Your task to perform on an android device: manage bookmarks in the chrome app Image 0: 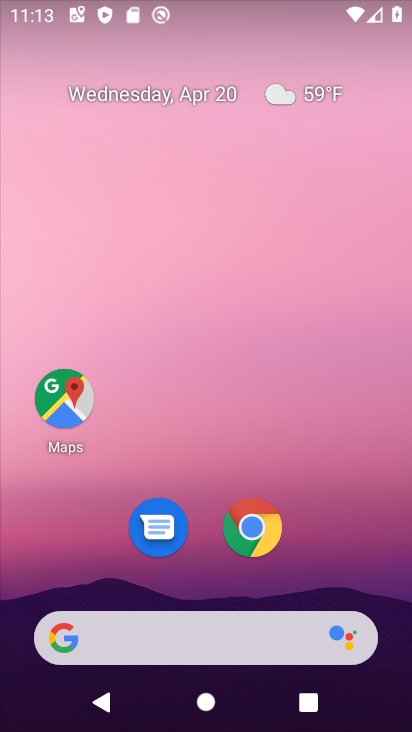
Step 0: drag from (329, 555) to (343, 214)
Your task to perform on an android device: manage bookmarks in the chrome app Image 1: 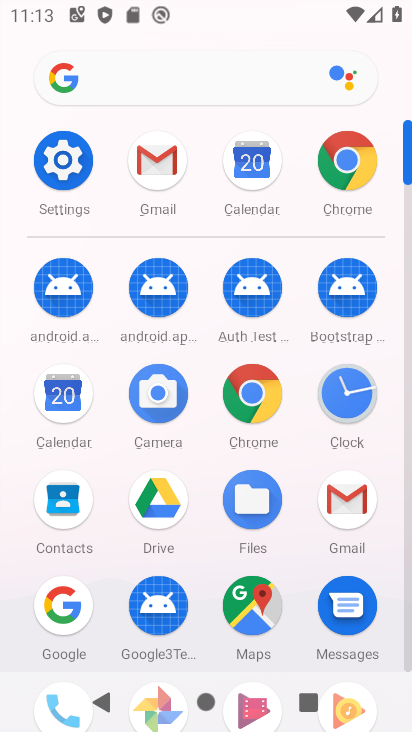
Step 1: click (252, 414)
Your task to perform on an android device: manage bookmarks in the chrome app Image 2: 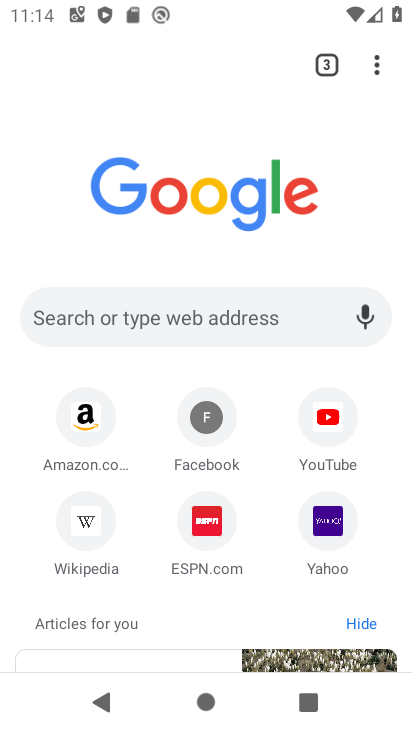
Step 2: click (379, 74)
Your task to perform on an android device: manage bookmarks in the chrome app Image 3: 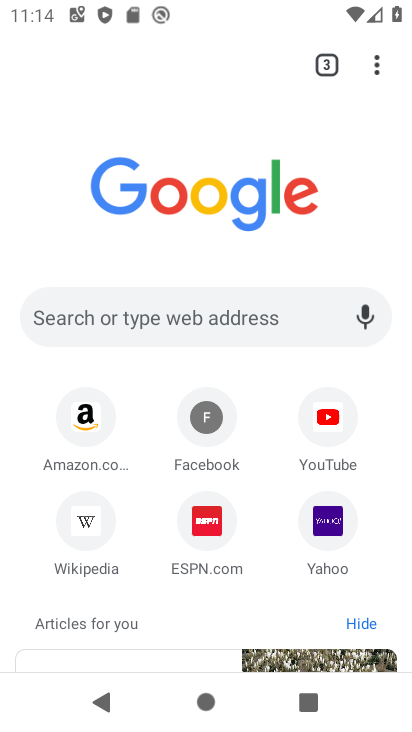
Step 3: task complete